Your task to perform on an android device: turn on airplane mode Image 0: 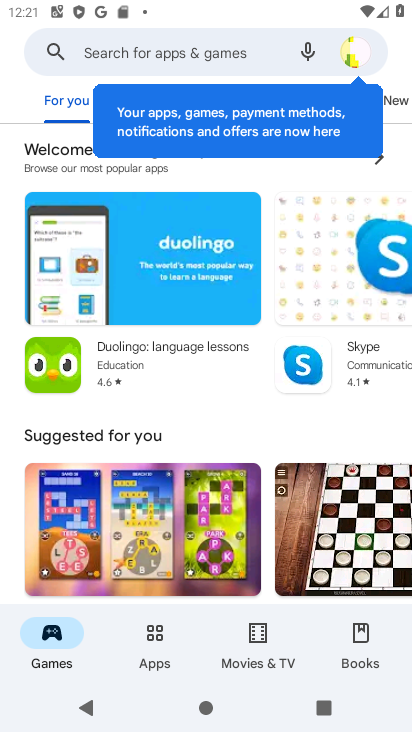
Step 0: press home button
Your task to perform on an android device: turn on airplane mode Image 1: 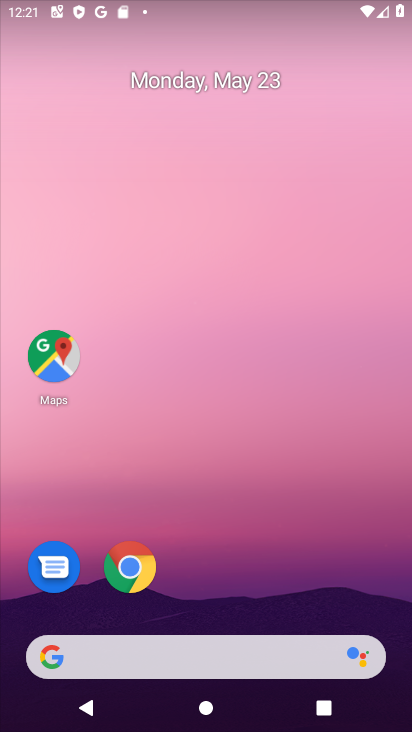
Step 1: drag from (239, 600) to (218, 83)
Your task to perform on an android device: turn on airplane mode Image 2: 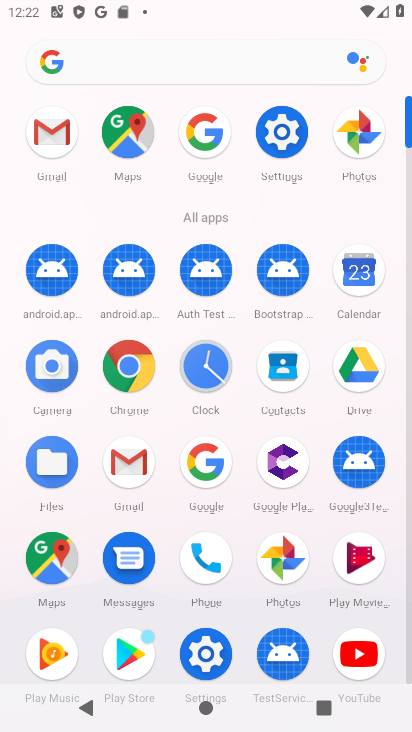
Step 2: click (129, 371)
Your task to perform on an android device: turn on airplane mode Image 3: 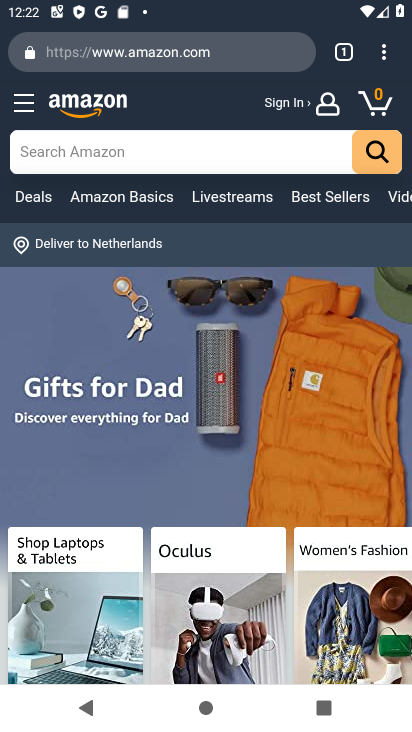
Step 3: press home button
Your task to perform on an android device: turn on airplane mode Image 4: 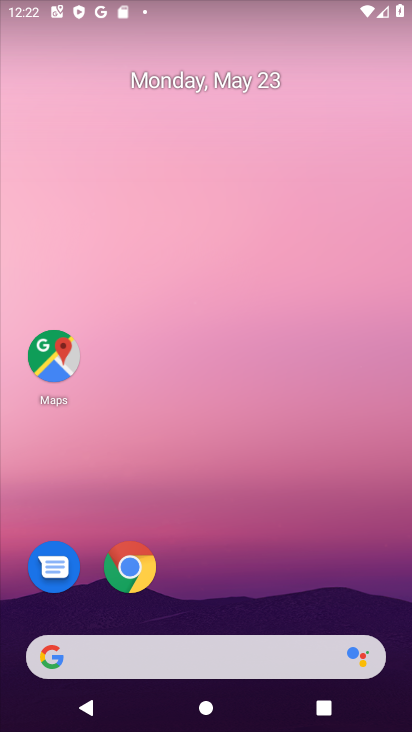
Step 4: drag from (276, 11) to (249, 606)
Your task to perform on an android device: turn on airplane mode Image 5: 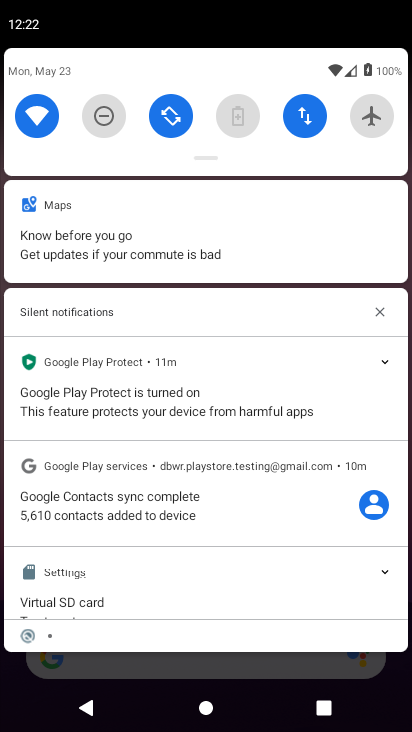
Step 5: click (373, 130)
Your task to perform on an android device: turn on airplane mode Image 6: 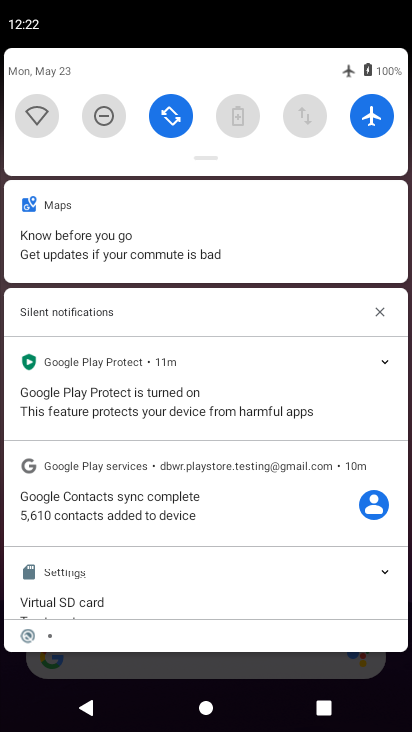
Step 6: task complete